Your task to perform on an android device: install app "Life360: Find Family & Friends" Image 0: 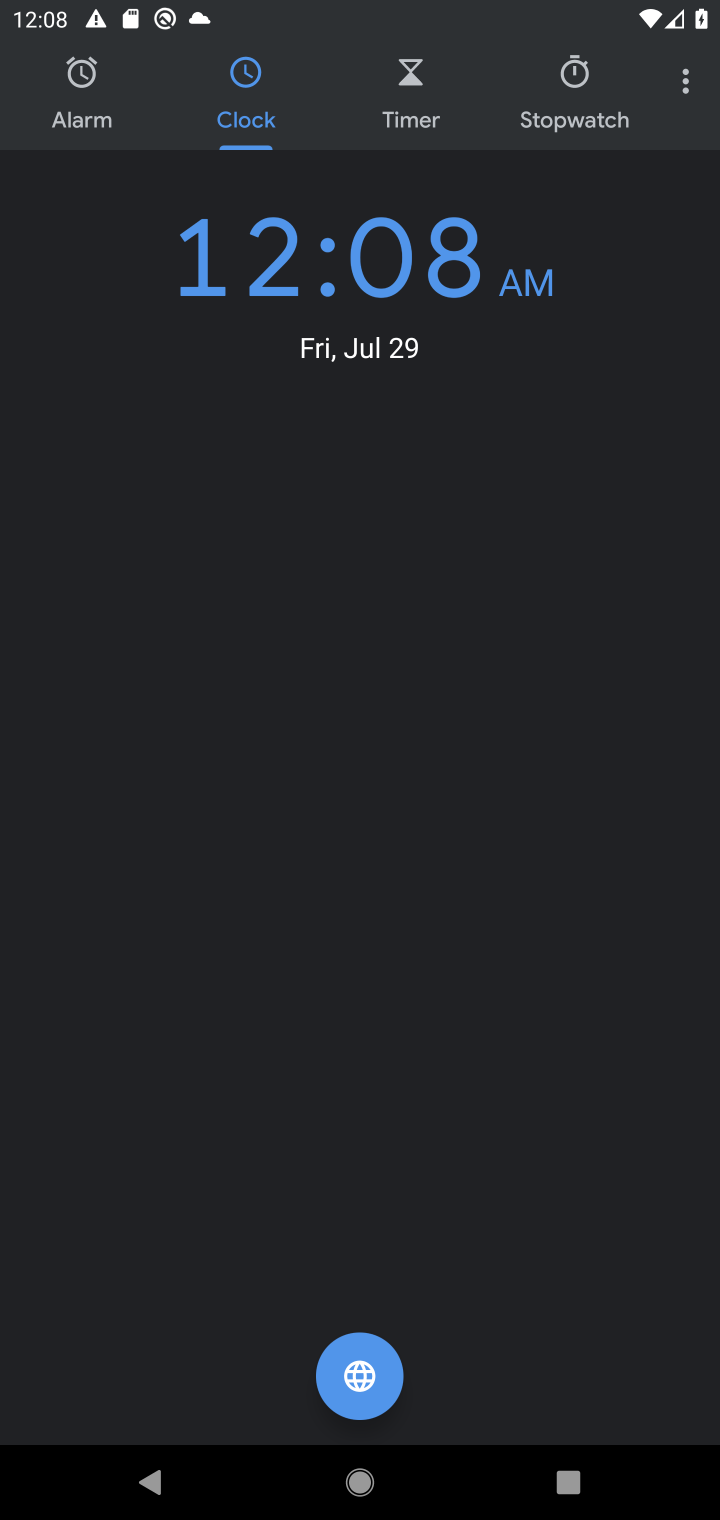
Step 0: press home button
Your task to perform on an android device: install app "Life360: Find Family & Friends" Image 1: 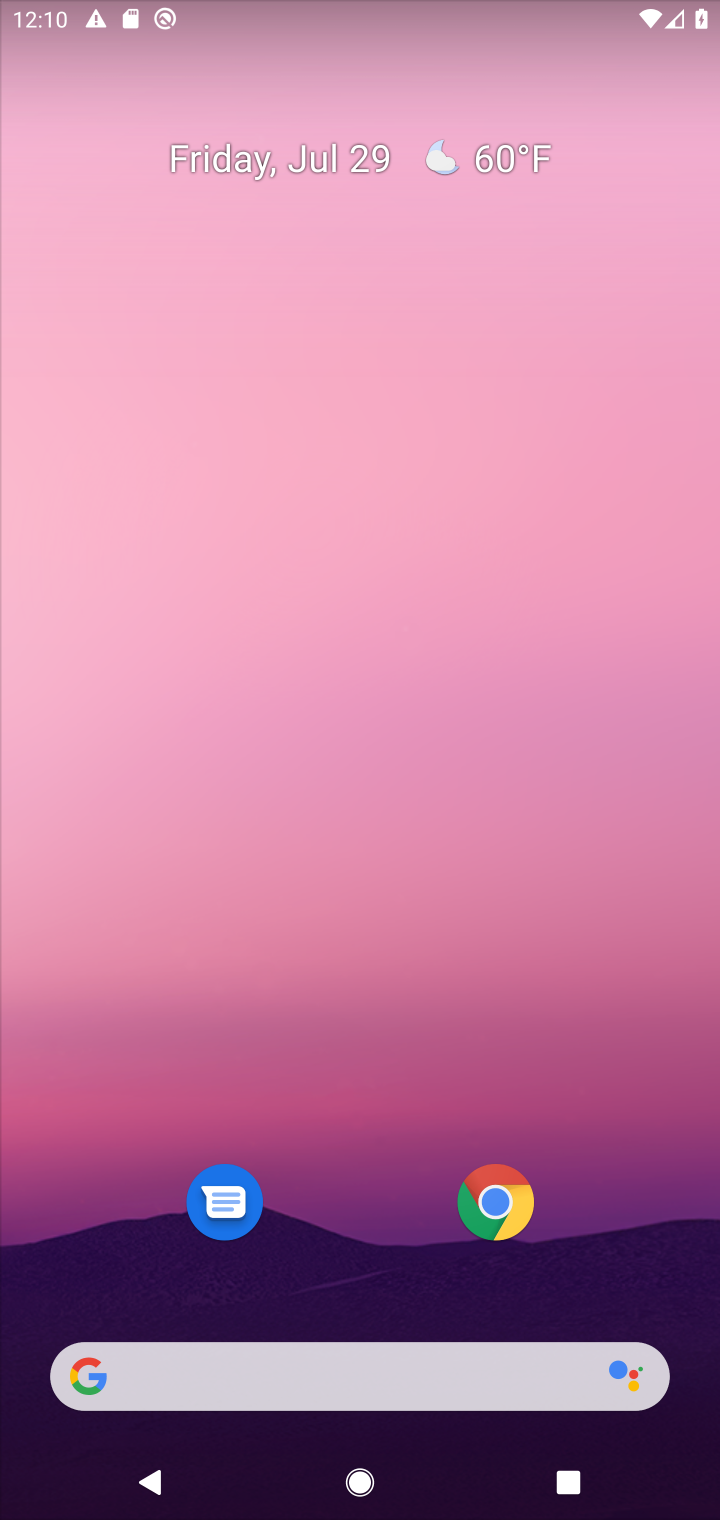
Step 1: click (178, 1360)
Your task to perform on an android device: install app "Life360: Find Family & Friends" Image 2: 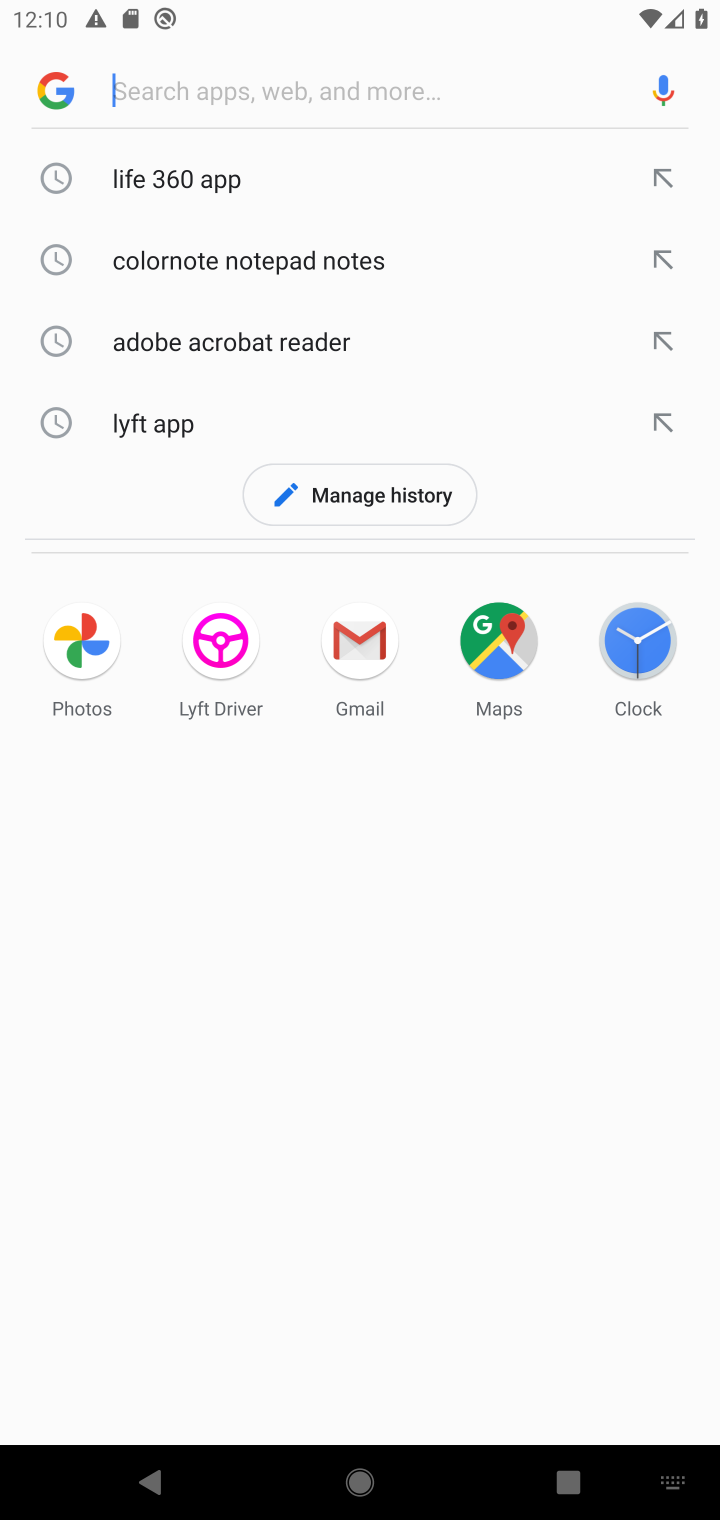
Step 2: type "life 360"
Your task to perform on an android device: install app "Life360: Find Family & Friends" Image 3: 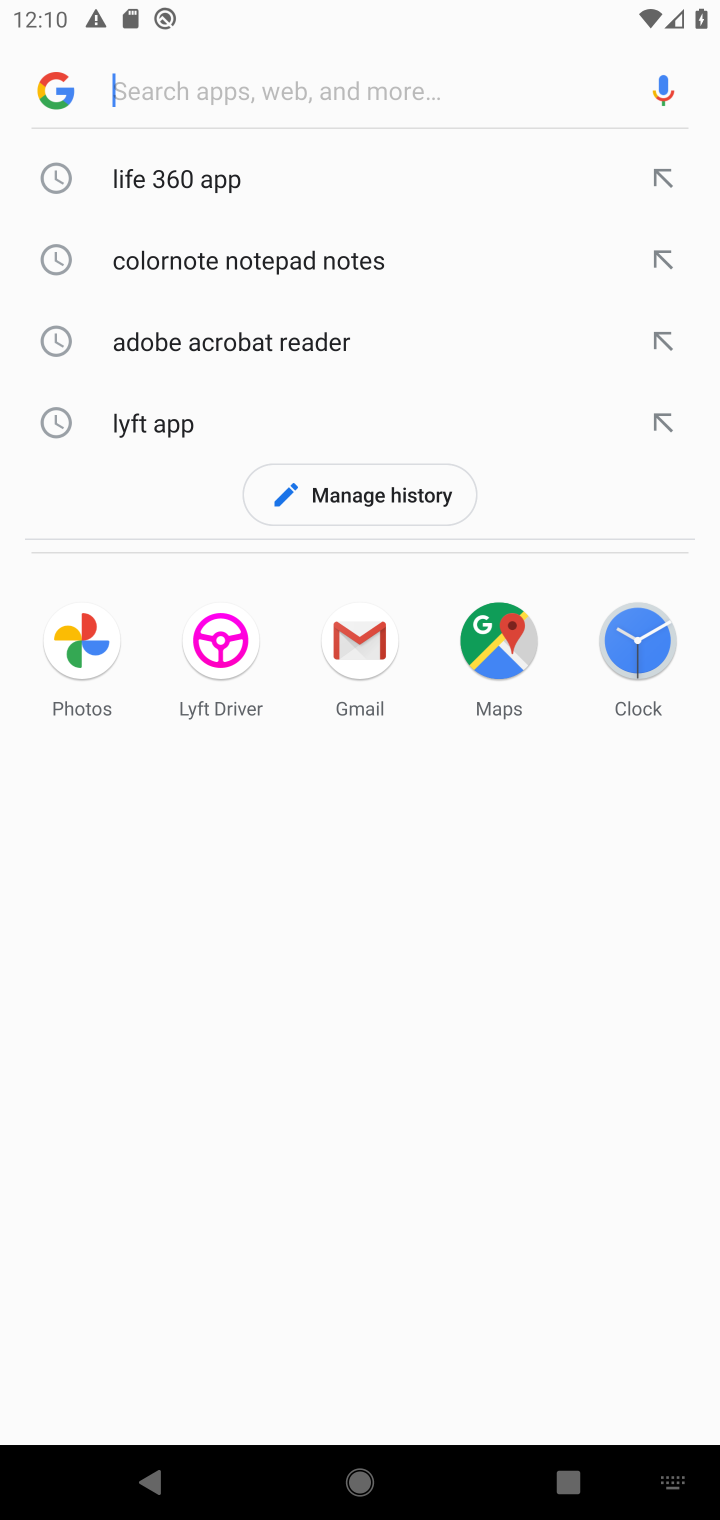
Step 3: click (532, 178)
Your task to perform on an android device: install app "Life360: Find Family & Friends" Image 4: 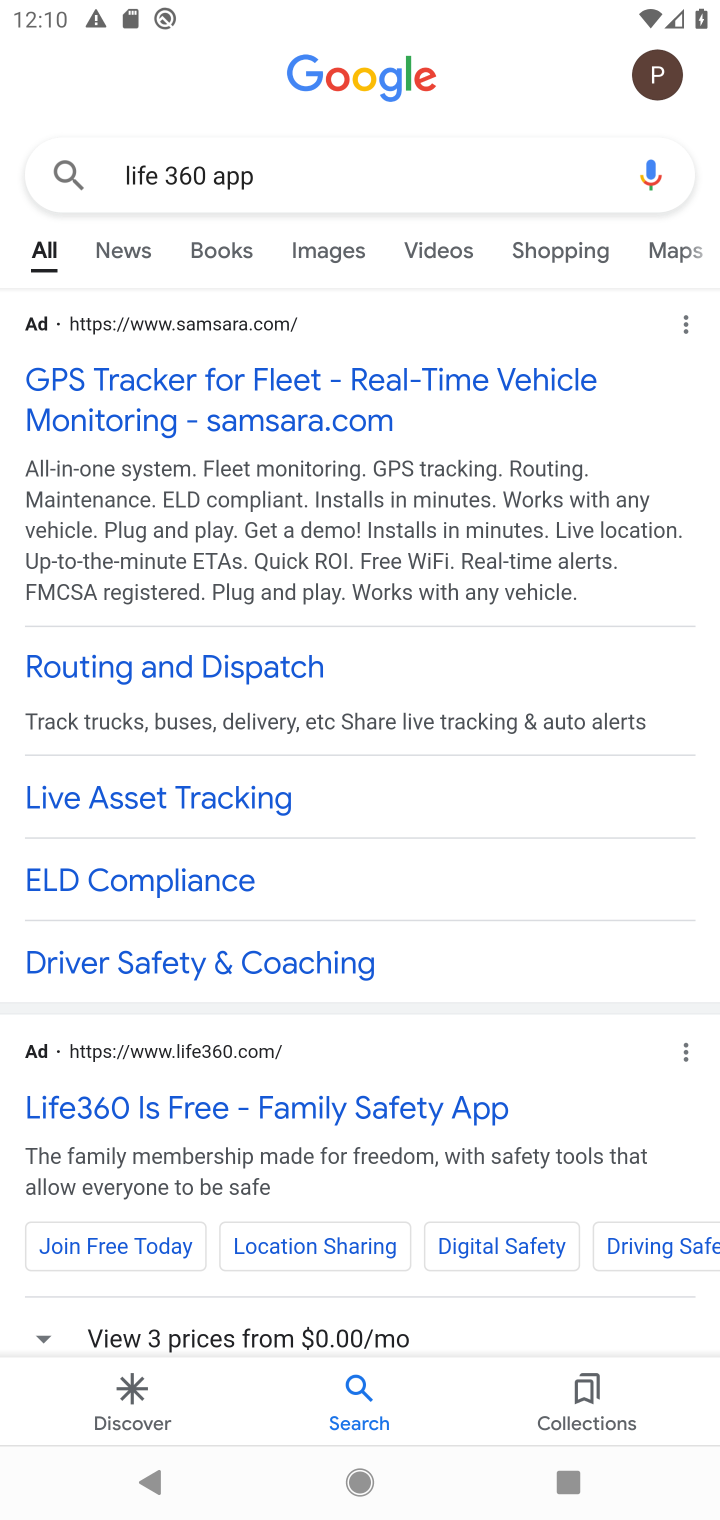
Step 4: drag from (478, 1176) to (451, 101)
Your task to perform on an android device: install app "Life360: Find Family & Friends" Image 5: 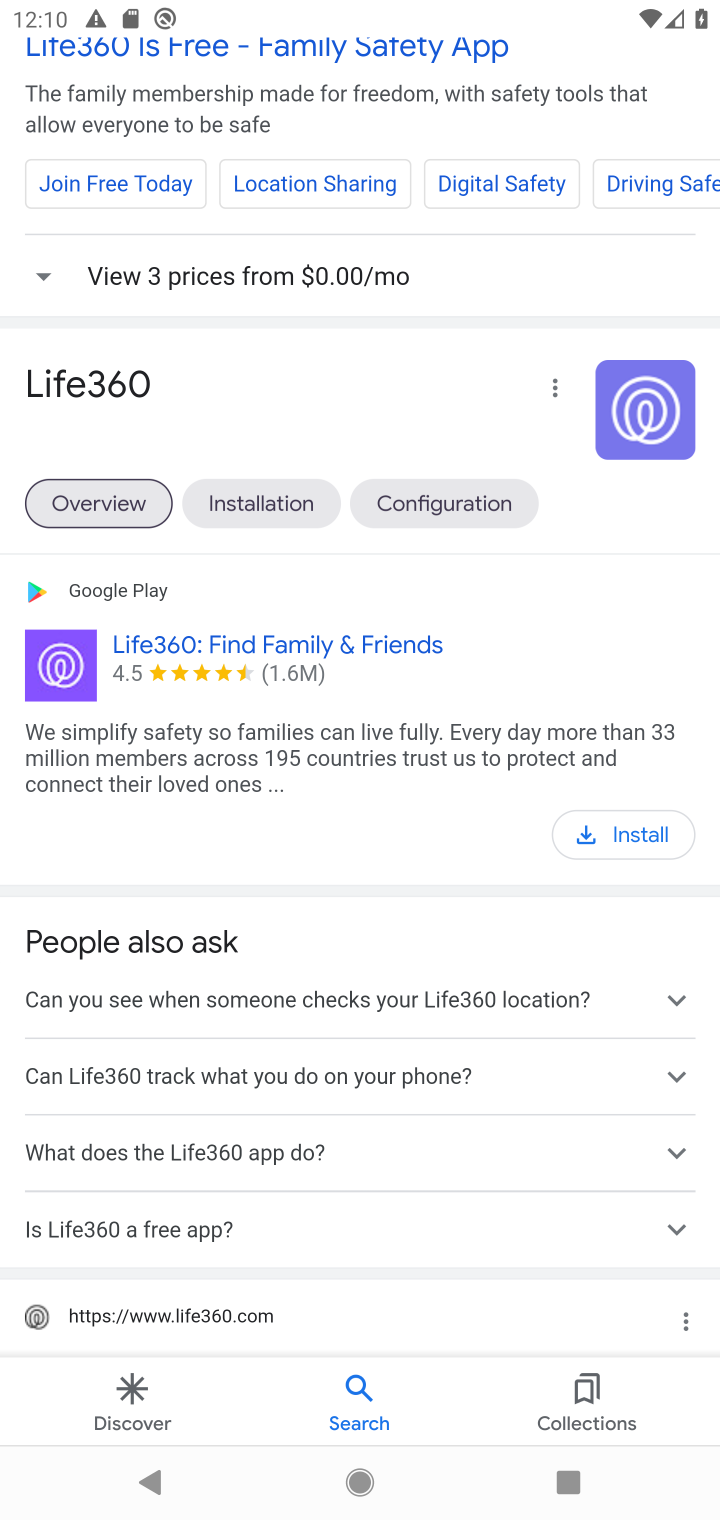
Step 5: click (598, 829)
Your task to perform on an android device: install app "Life360: Find Family & Friends" Image 6: 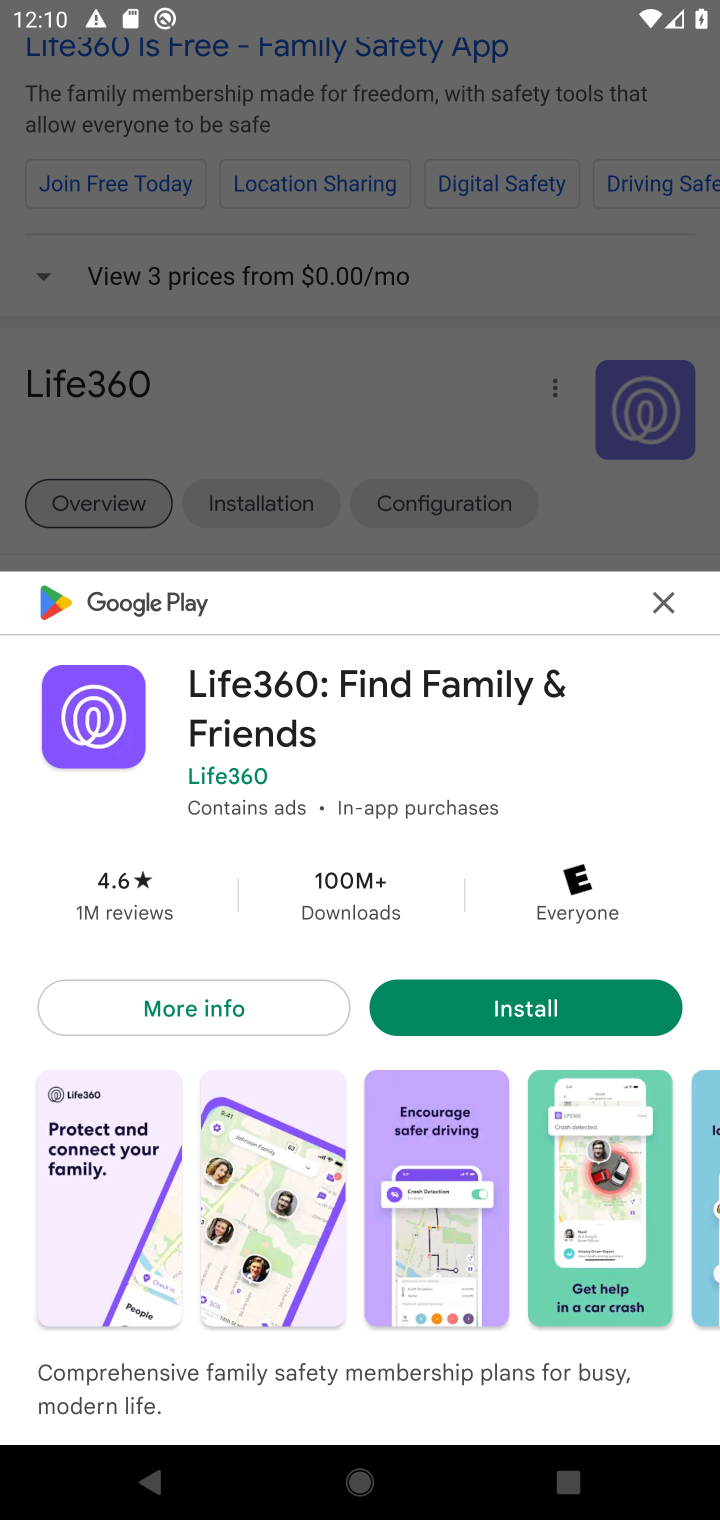
Step 6: click (573, 986)
Your task to perform on an android device: install app "Life360: Find Family & Friends" Image 7: 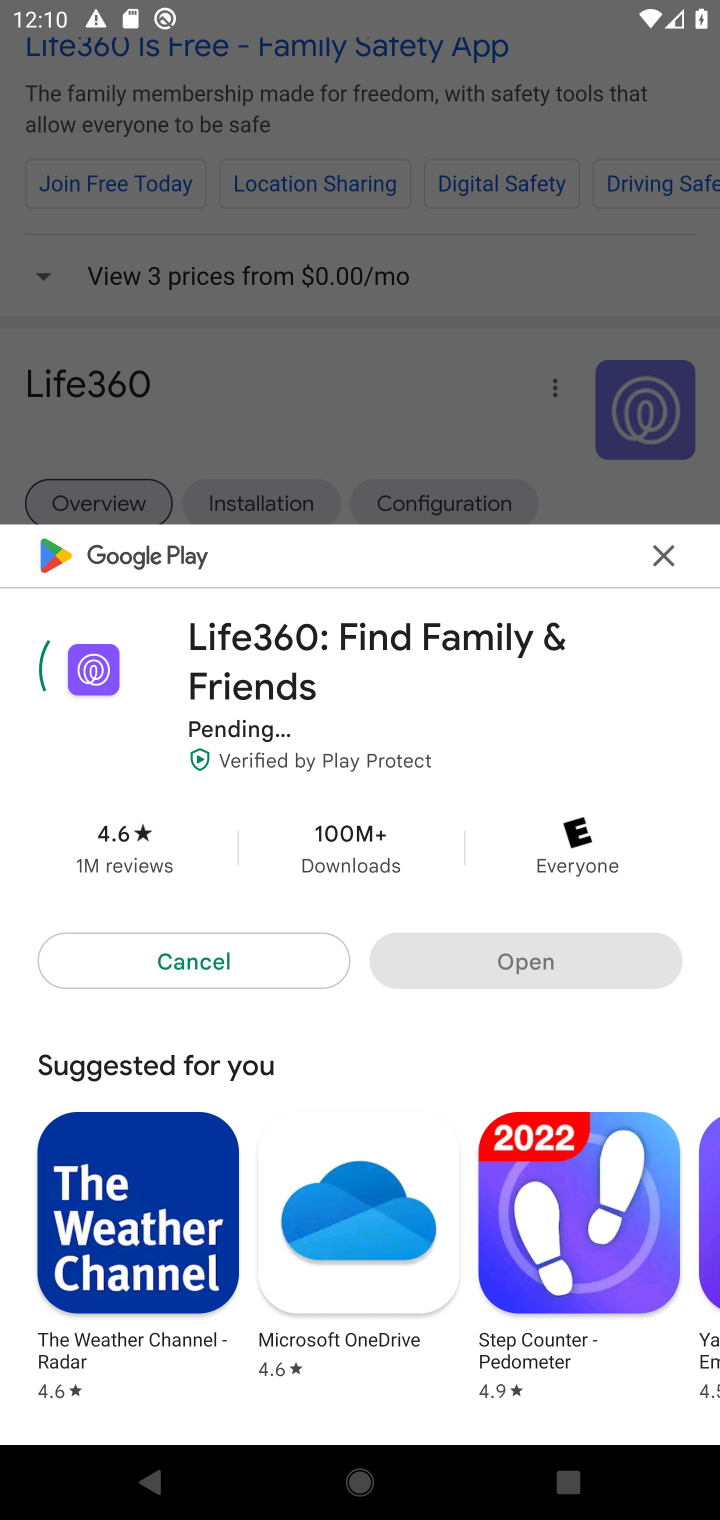
Step 7: task complete